Your task to perform on an android device: turn on javascript in the chrome app Image 0: 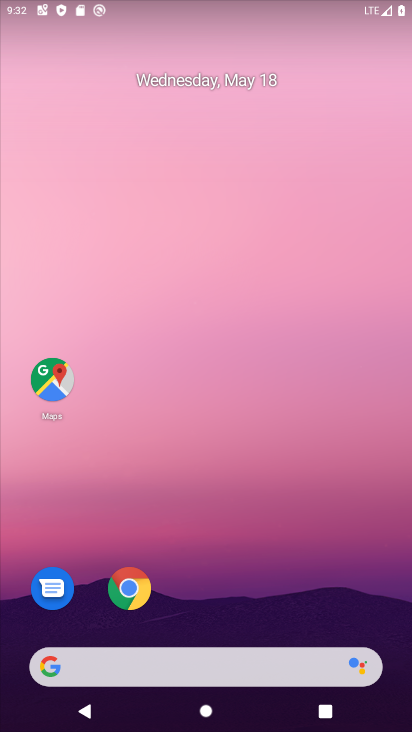
Step 0: click (135, 592)
Your task to perform on an android device: turn on javascript in the chrome app Image 1: 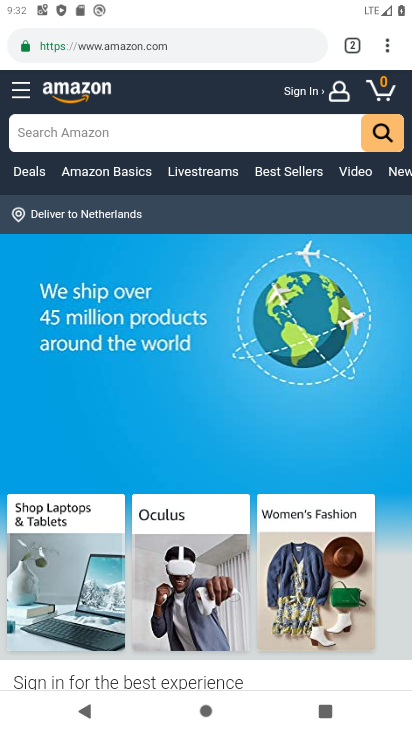
Step 1: click (385, 46)
Your task to perform on an android device: turn on javascript in the chrome app Image 2: 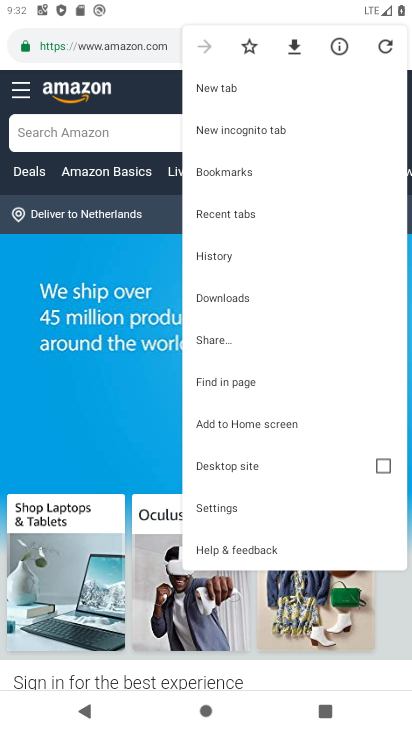
Step 2: click (227, 509)
Your task to perform on an android device: turn on javascript in the chrome app Image 3: 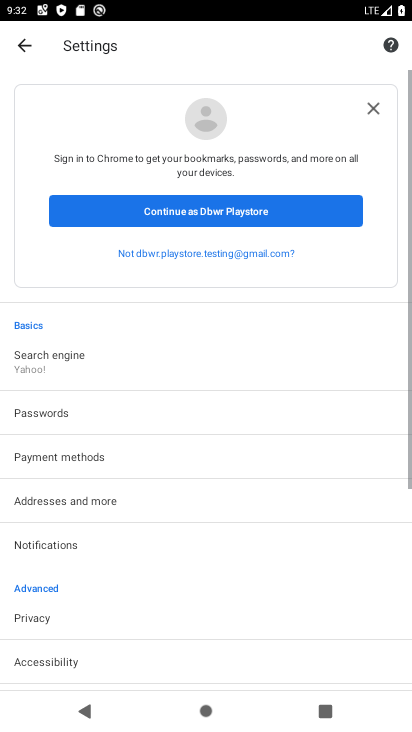
Step 3: drag from (190, 595) to (189, 188)
Your task to perform on an android device: turn on javascript in the chrome app Image 4: 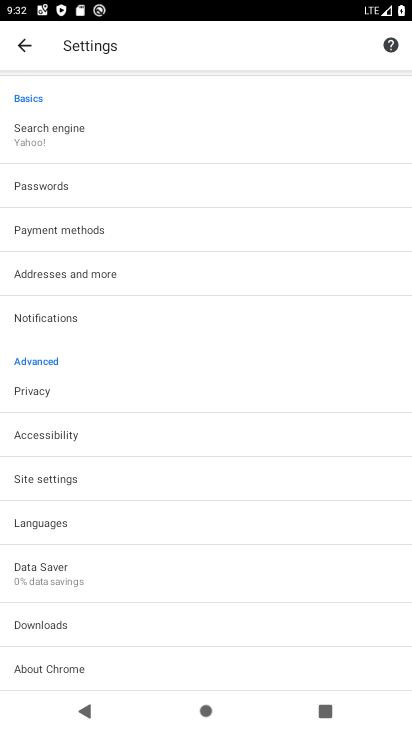
Step 4: click (47, 483)
Your task to perform on an android device: turn on javascript in the chrome app Image 5: 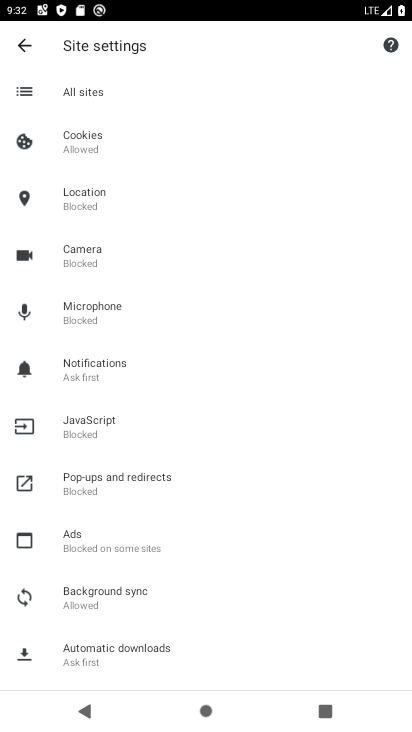
Step 5: click (80, 433)
Your task to perform on an android device: turn on javascript in the chrome app Image 6: 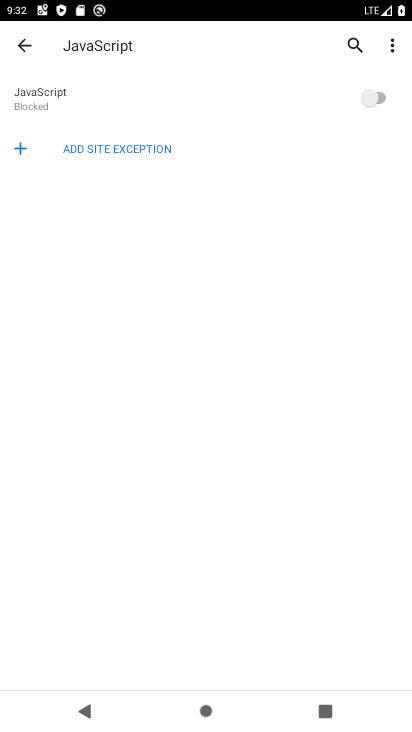
Step 6: click (362, 99)
Your task to perform on an android device: turn on javascript in the chrome app Image 7: 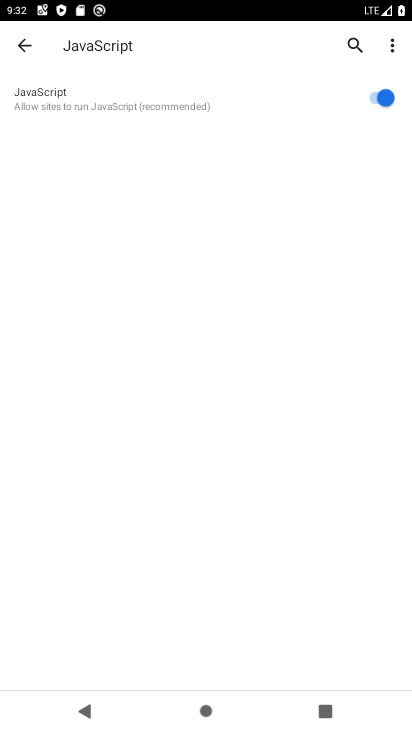
Step 7: task complete